Your task to perform on an android device: Open calendar and show me the third week of next month Image 0: 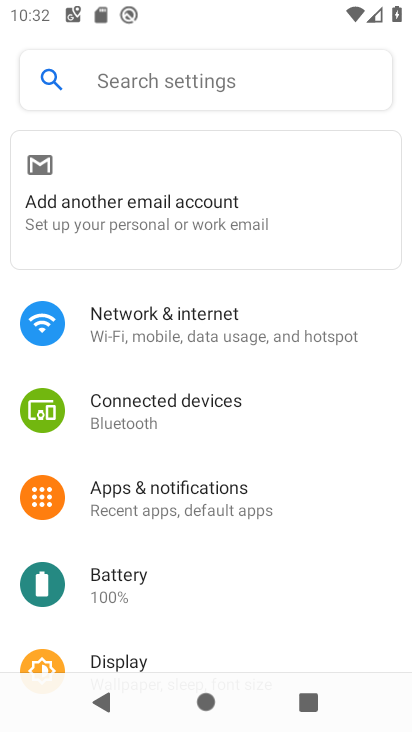
Step 0: press home button
Your task to perform on an android device: Open calendar and show me the third week of next month Image 1: 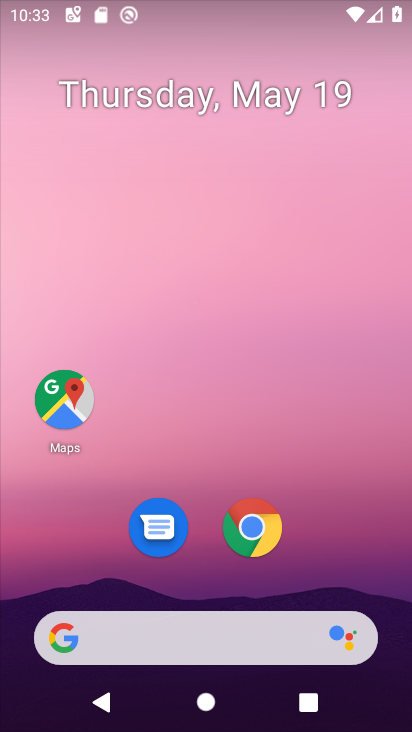
Step 1: drag from (378, 549) to (363, 124)
Your task to perform on an android device: Open calendar and show me the third week of next month Image 2: 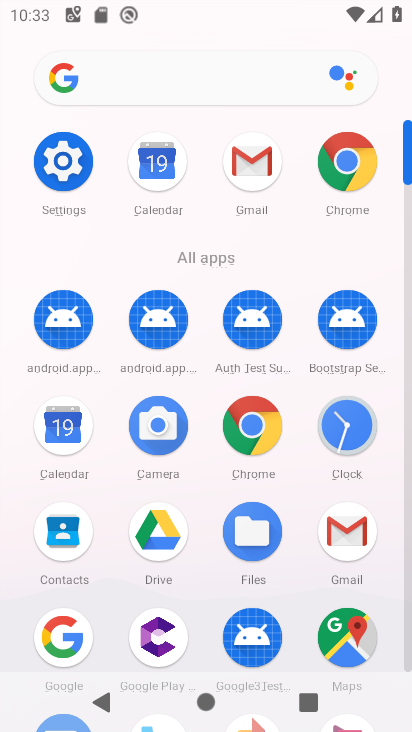
Step 2: click (71, 415)
Your task to perform on an android device: Open calendar and show me the third week of next month Image 3: 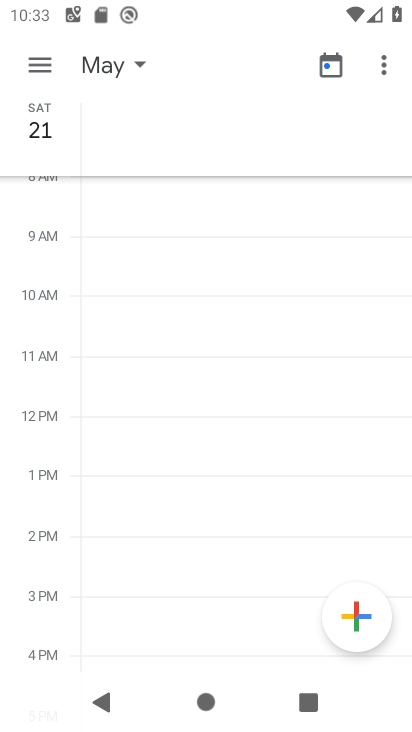
Step 3: click (48, 65)
Your task to perform on an android device: Open calendar and show me the third week of next month Image 4: 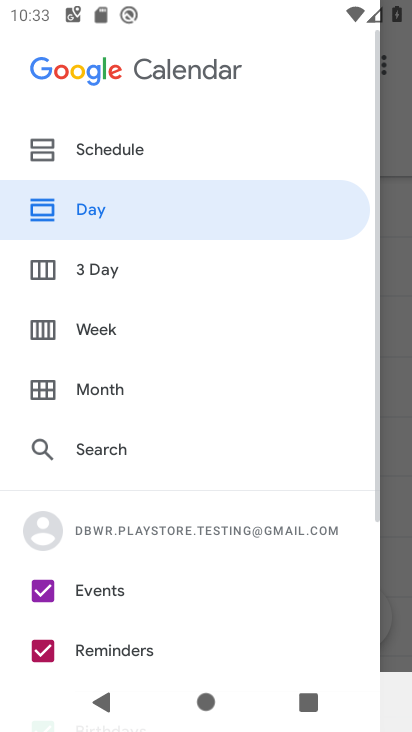
Step 4: click (136, 332)
Your task to perform on an android device: Open calendar and show me the third week of next month Image 5: 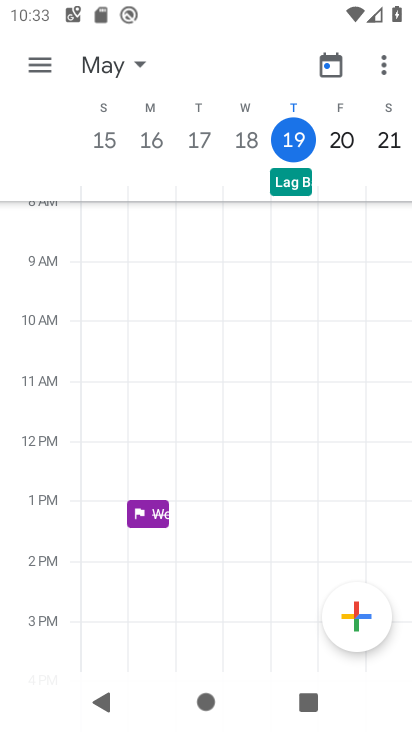
Step 5: click (142, 71)
Your task to perform on an android device: Open calendar and show me the third week of next month Image 6: 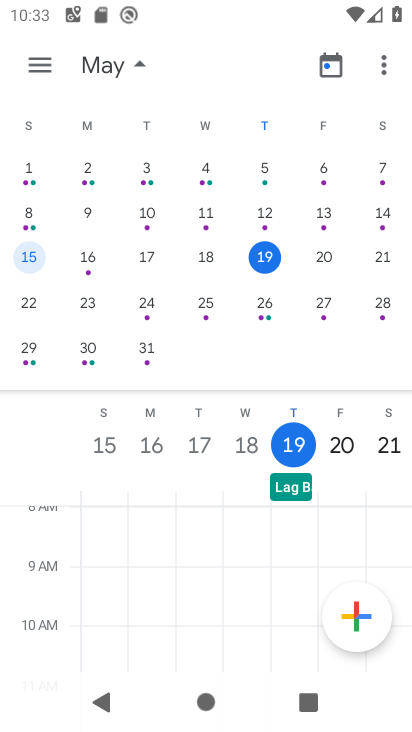
Step 6: drag from (398, 272) to (45, 278)
Your task to perform on an android device: Open calendar and show me the third week of next month Image 7: 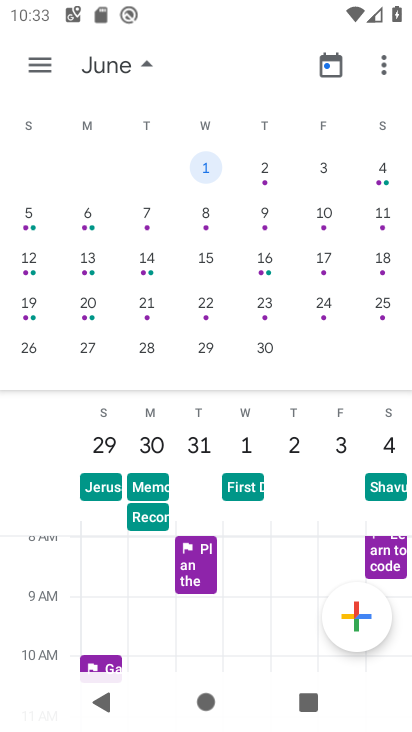
Step 7: click (201, 266)
Your task to perform on an android device: Open calendar and show me the third week of next month Image 8: 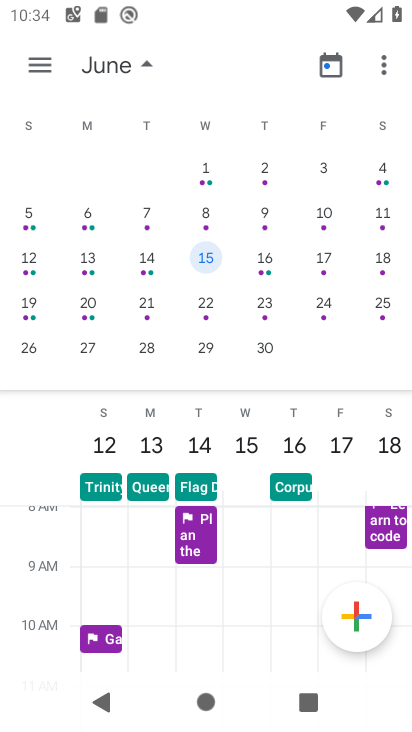
Step 8: task complete